Your task to perform on an android device: open wifi settings Image 0: 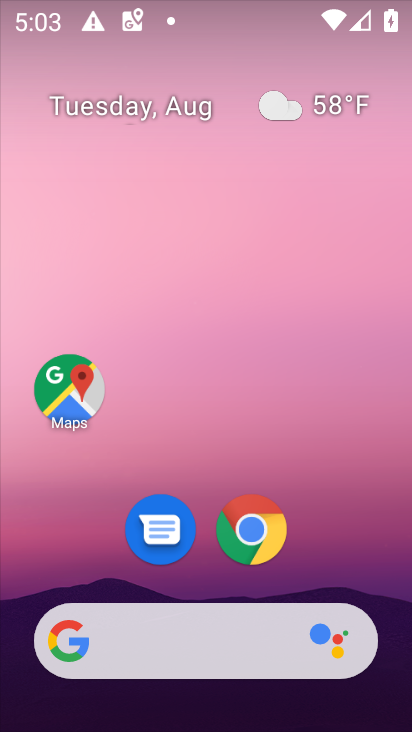
Step 0: drag from (194, 461) to (187, 45)
Your task to perform on an android device: open wifi settings Image 1: 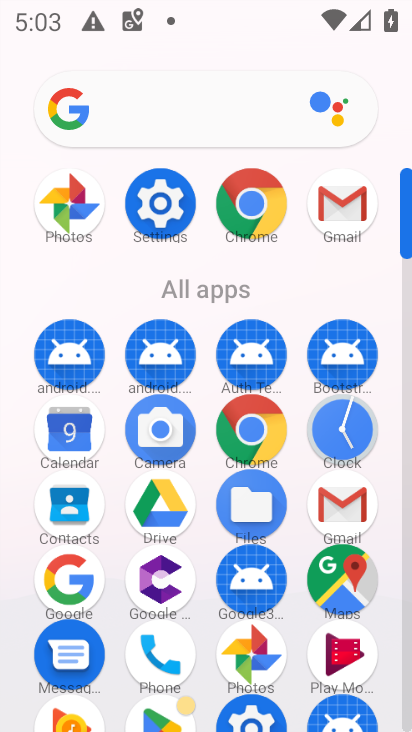
Step 1: click (142, 212)
Your task to perform on an android device: open wifi settings Image 2: 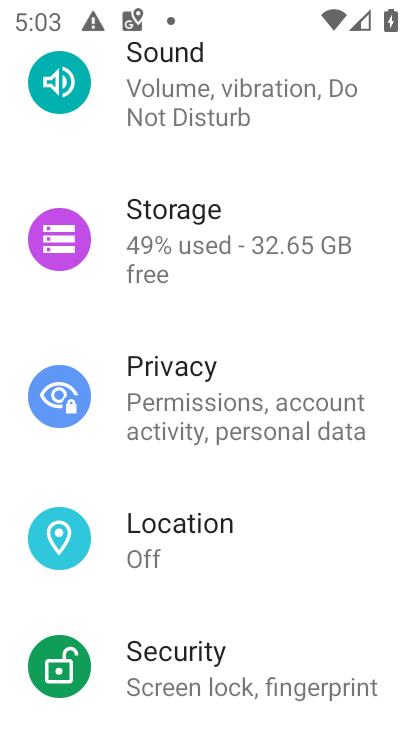
Step 2: drag from (142, 212) to (201, 491)
Your task to perform on an android device: open wifi settings Image 3: 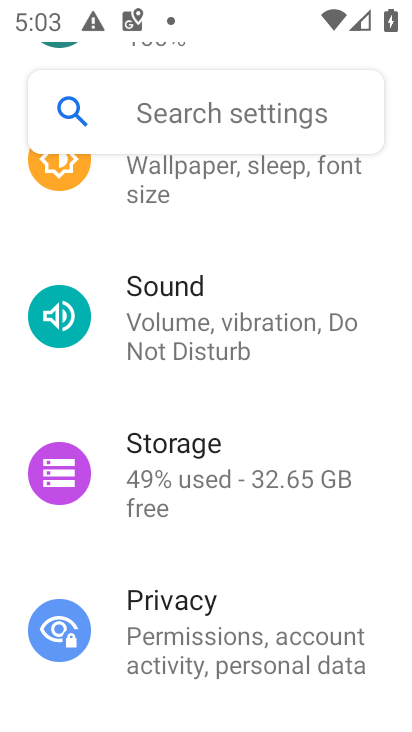
Step 3: drag from (188, 185) to (188, 472)
Your task to perform on an android device: open wifi settings Image 4: 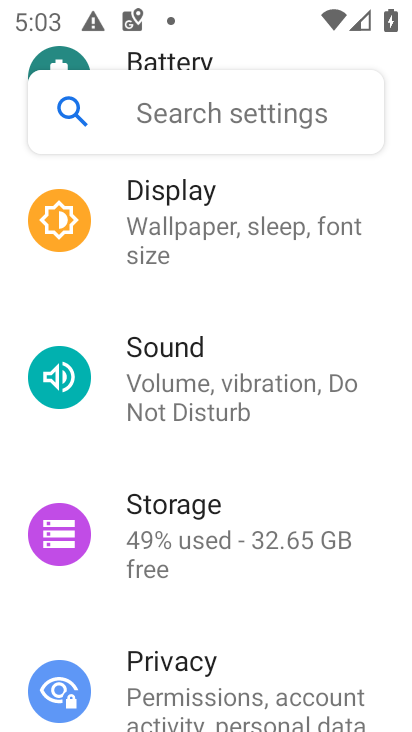
Step 4: drag from (199, 288) to (199, 579)
Your task to perform on an android device: open wifi settings Image 5: 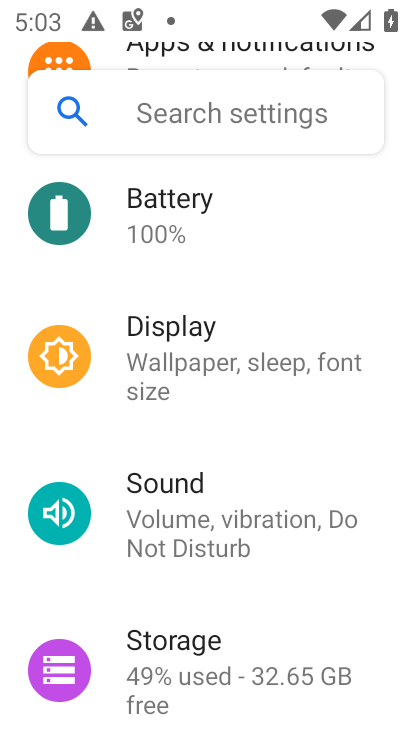
Step 5: drag from (187, 249) to (199, 577)
Your task to perform on an android device: open wifi settings Image 6: 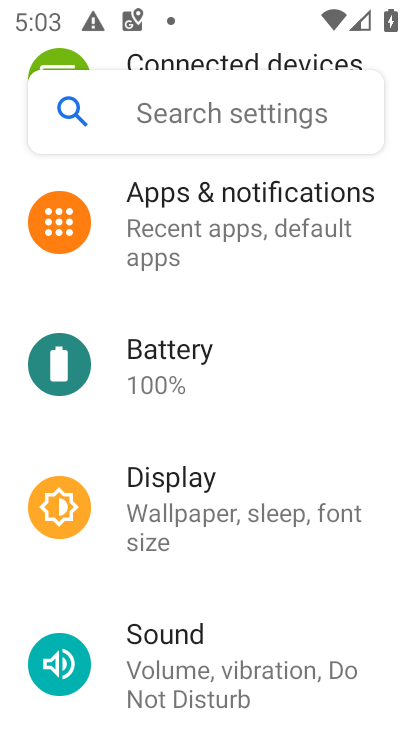
Step 6: drag from (193, 253) to (190, 591)
Your task to perform on an android device: open wifi settings Image 7: 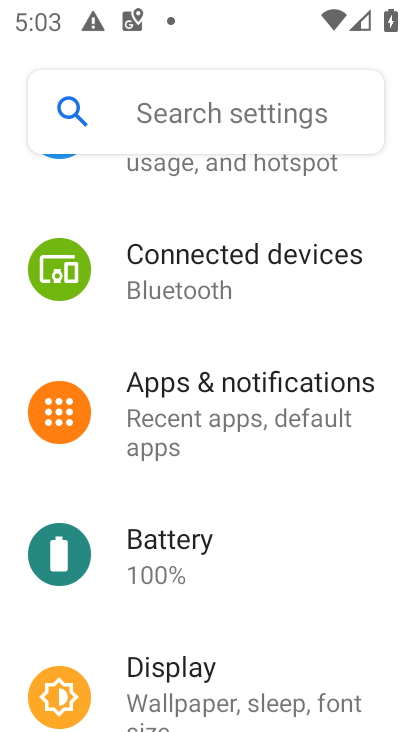
Step 7: drag from (186, 295) to (215, 541)
Your task to perform on an android device: open wifi settings Image 8: 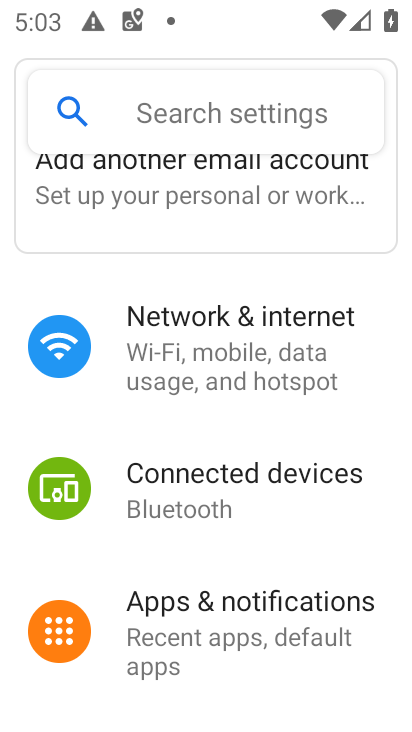
Step 8: click (175, 324)
Your task to perform on an android device: open wifi settings Image 9: 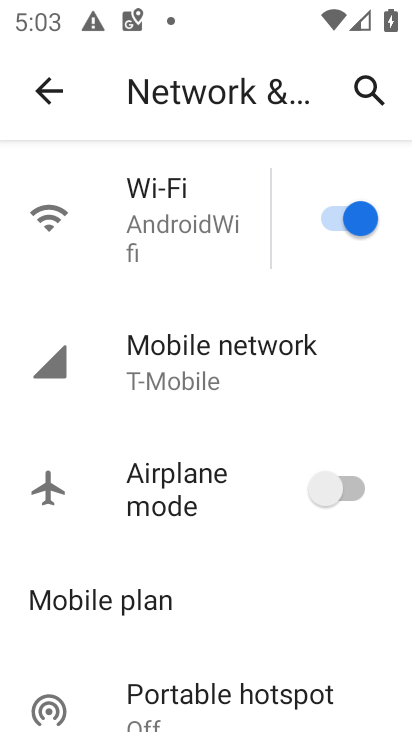
Step 9: click (190, 192)
Your task to perform on an android device: open wifi settings Image 10: 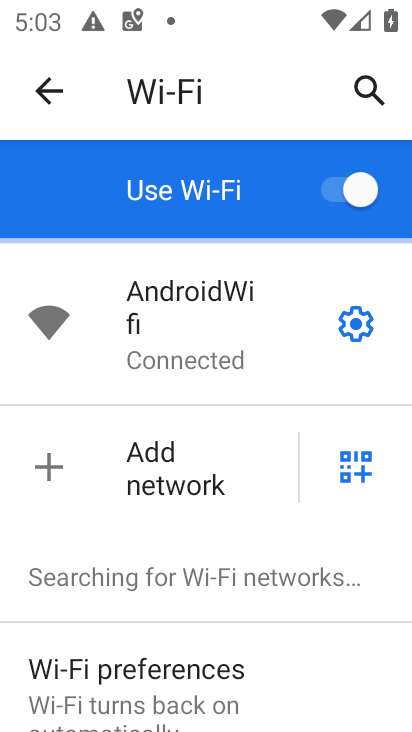
Step 10: task complete